Your task to perform on an android device: check battery use Image 0: 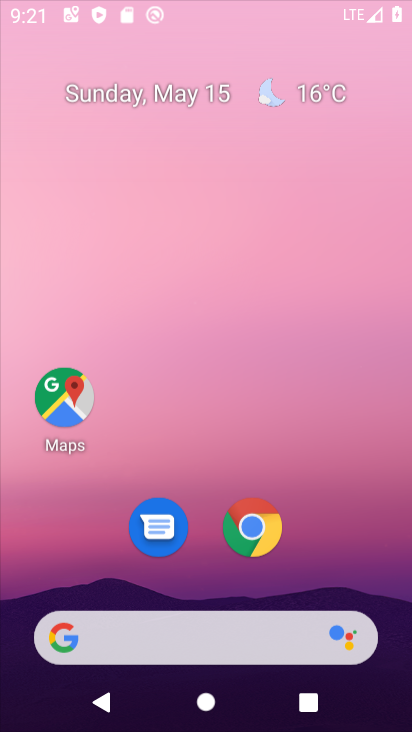
Step 0: click (381, 18)
Your task to perform on an android device: check battery use Image 1: 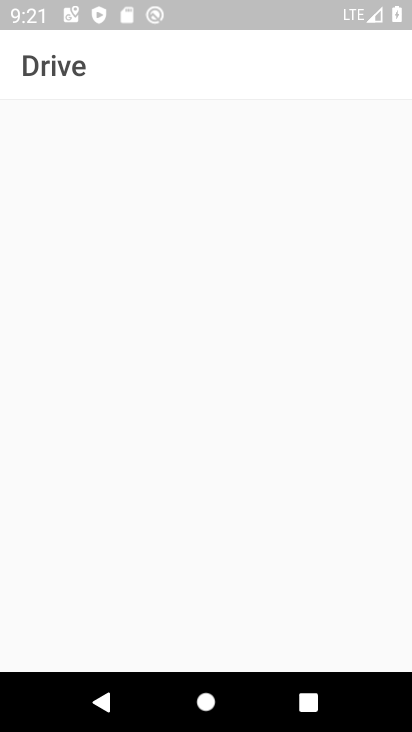
Step 1: press home button
Your task to perform on an android device: check battery use Image 2: 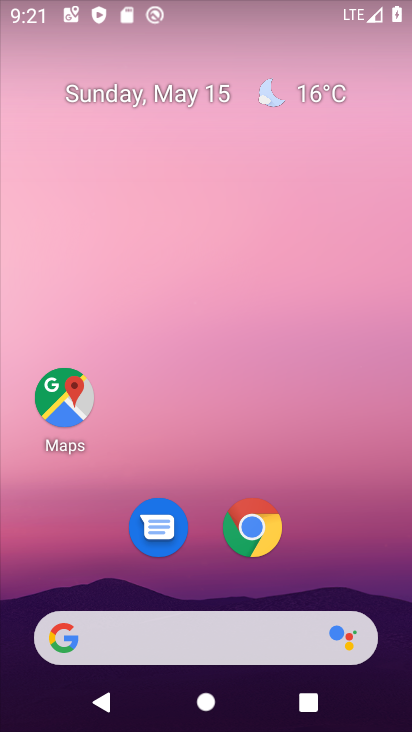
Step 2: drag from (366, 590) to (279, 10)
Your task to perform on an android device: check battery use Image 3: 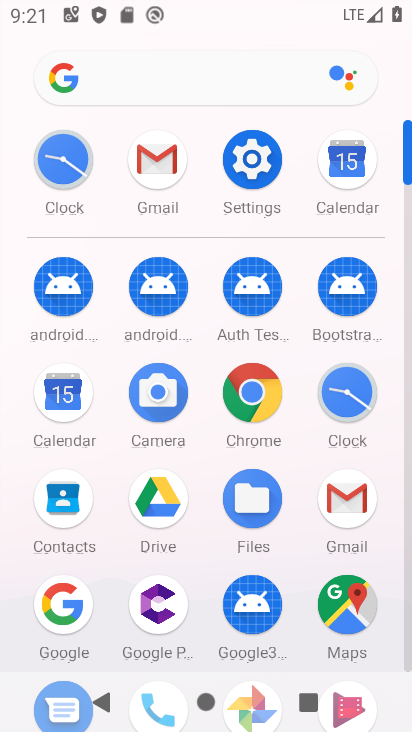
Step 3: click (255, 157)
Your task to perform on an android device: check battery use Image 4: 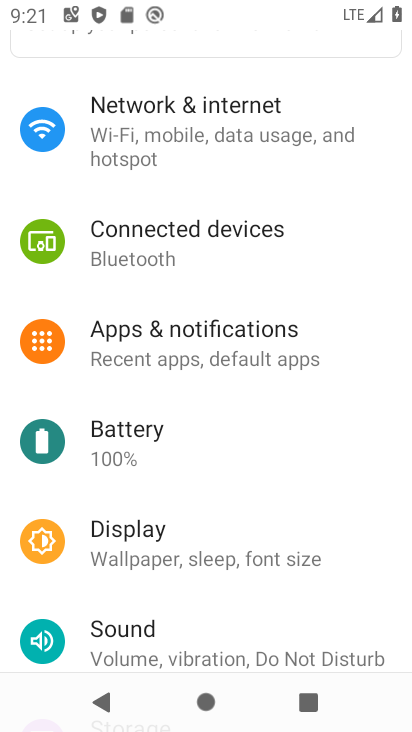
Step 4: click (122, 444)
Your task to perform on an android device: check battery use Image 5: 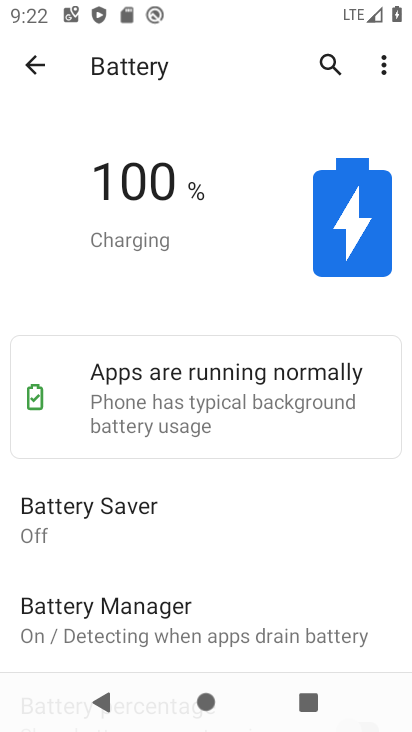
Step 5: task complete